Your task to perform on an android device: When is my next appointment? Image 0: 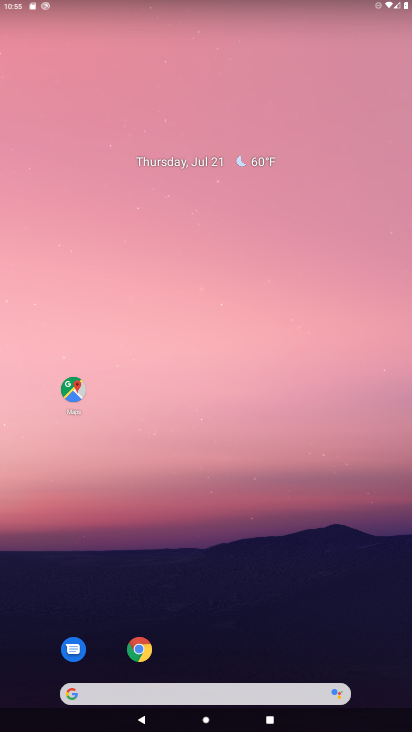
Step 0: drag from (377, 712) to (352, 154)
Your task to perform on an android device: When is my next appointment? Image 1: 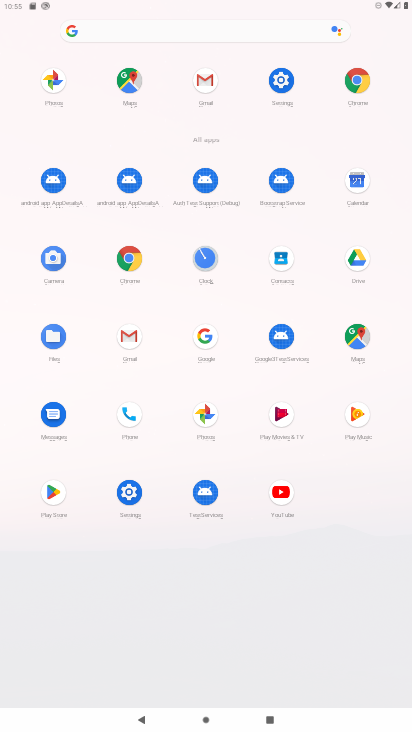
Step 1: click (355, 176)
Your task to perform on an android device: When is my next appointment? Image 2: 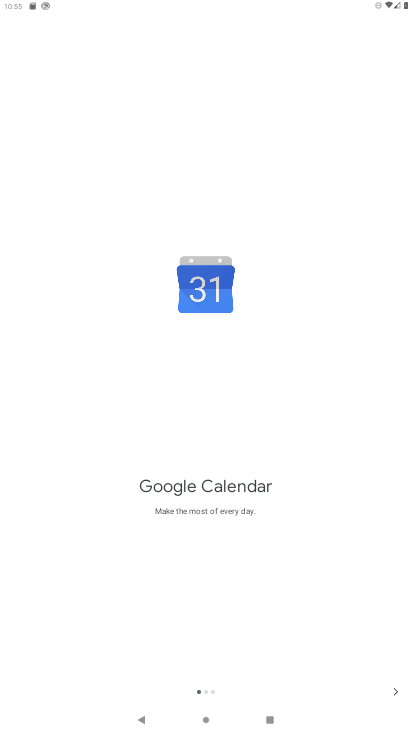
Step 2: click (395, 688)
Your task to perform on an android device: When is my next appointment? Image 3: 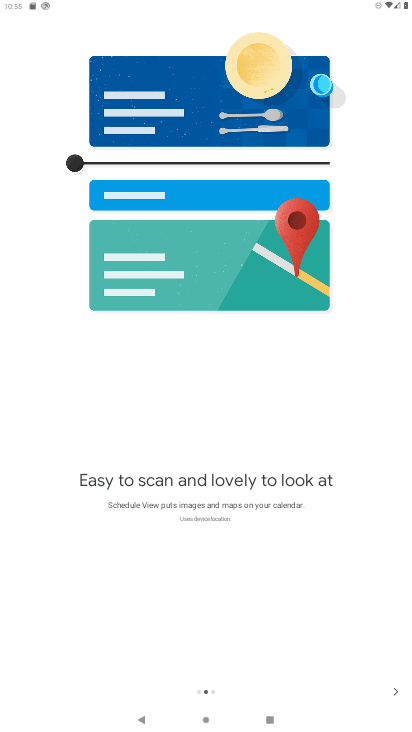
Step 3: click (395, 688)
Your task to perform on an android device: When is my next appointment? Image 4: 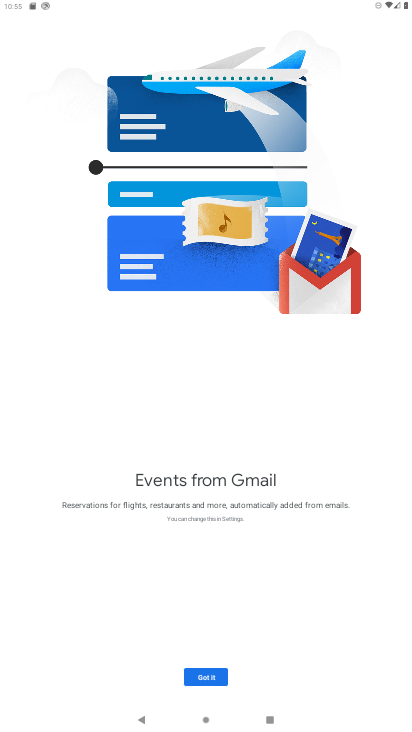
Step 4: click (196, 671)
Your task to perform on an android device: When is my next appointment? Image 5: 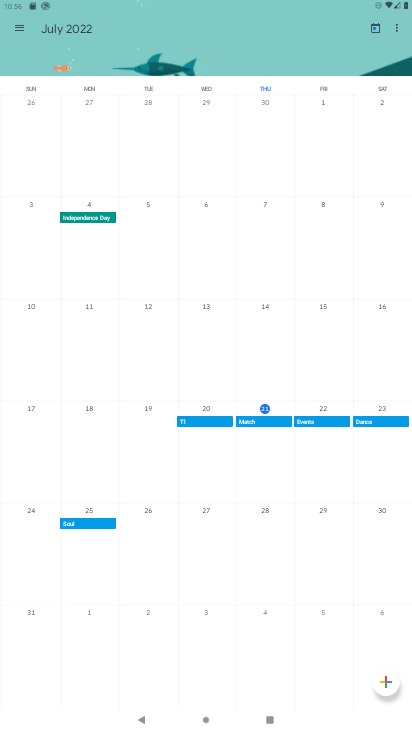
Step 5: press back button
Your task to perform on an android device: When is my next appointment? Image 6: 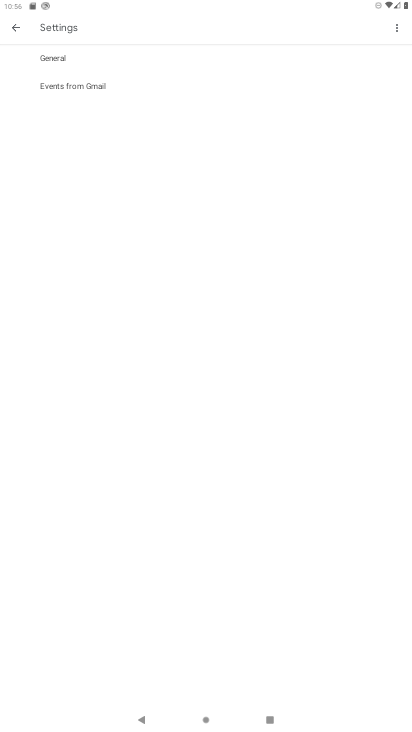
Step 6: click (10, 27)
Your task to perform on an android device: When is my next appointment? Image 7: 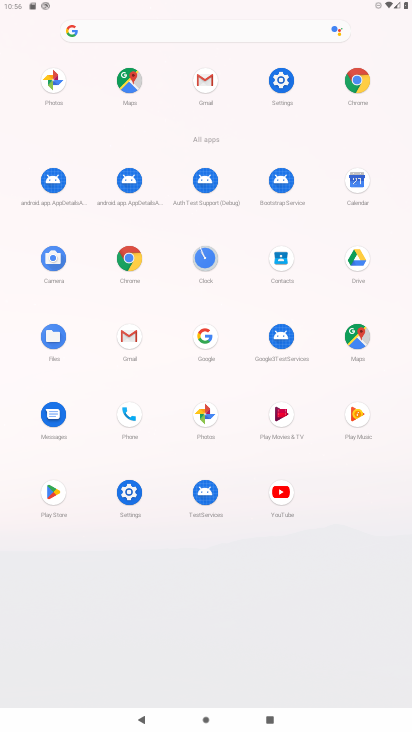
Step 7: click (349, 188)
Your task to perform on an android device: When is my next appointment? Image 8: 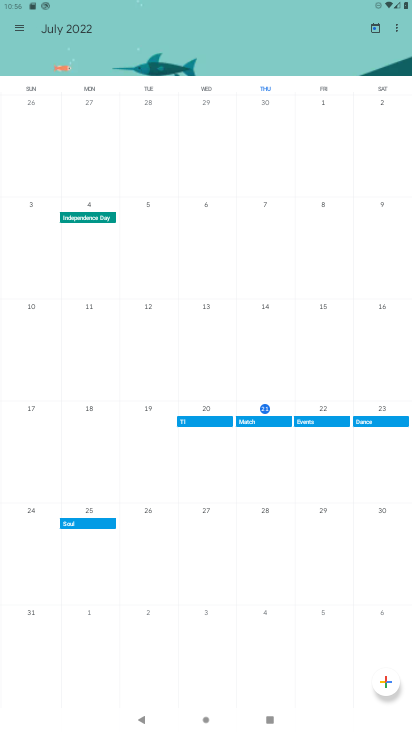
Step 8: click (20, 27)
Your task to perform on an android device: When is my next appointment? Image 9: 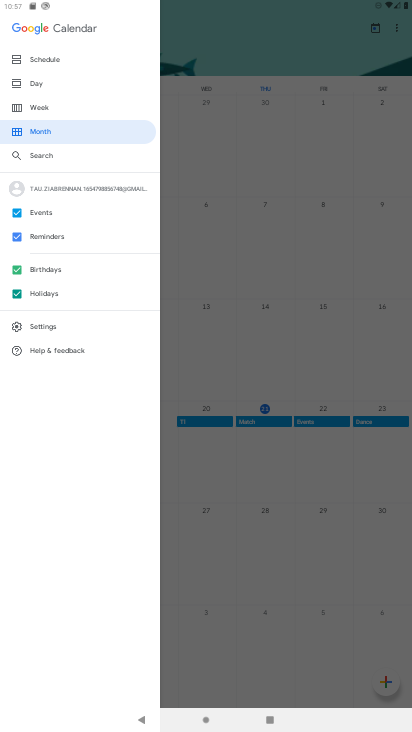
Step 9: click (40, 60)
Your task to perform on an android device: When is my next appointment? Image 10: 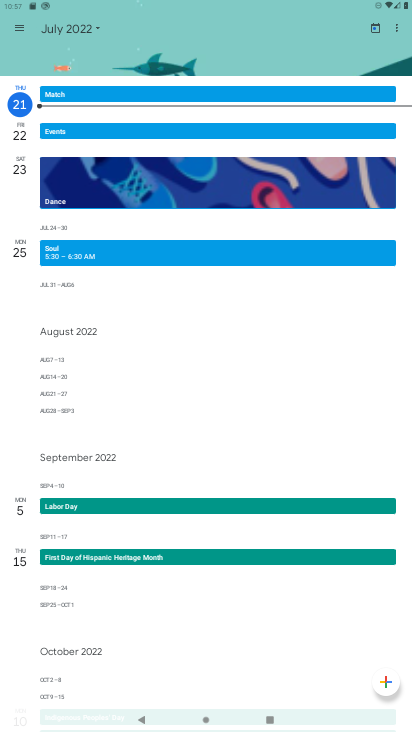
Step 10: task complete